Your task to perform on an android device: Open calendar and show me the fourth week of next month Image 0: 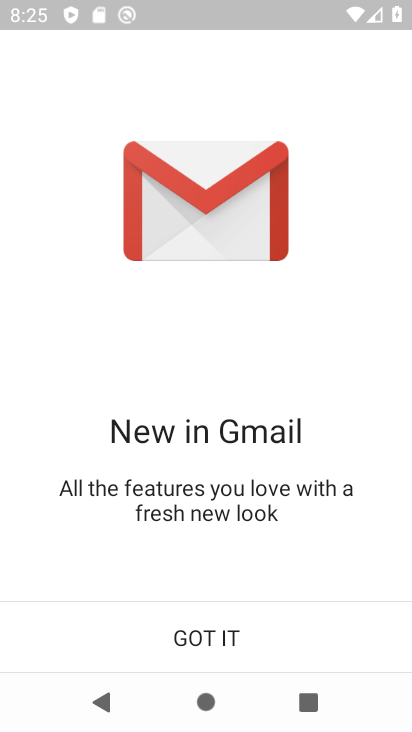
Step 0: drag from (211, 633) to (400, 439)
Your task to perform on an android device: Open calendar and show me the fourth week of next month Image 1: 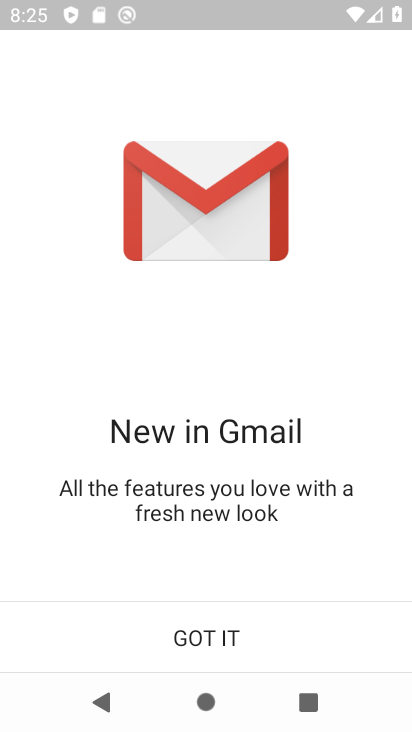
Step 1: press home button
Your task to perform on an android device: Open calendar and show me the fourth week of next month Image 2: 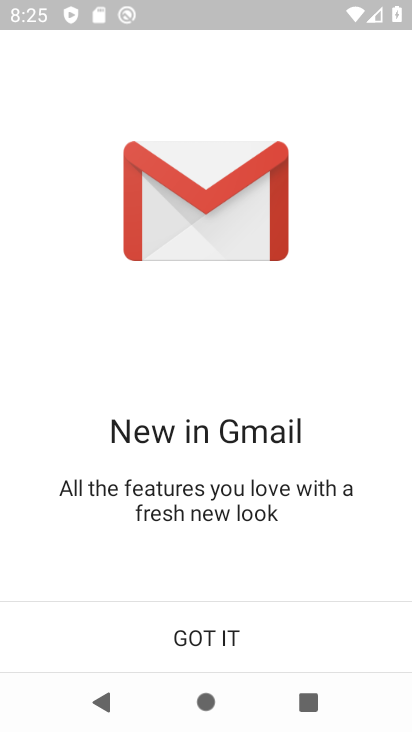
Step 2: drag from (400, 439) to (405, 396)
Your task to perform on an android device: Open calendar and show me the fourth week of next month Image 3: 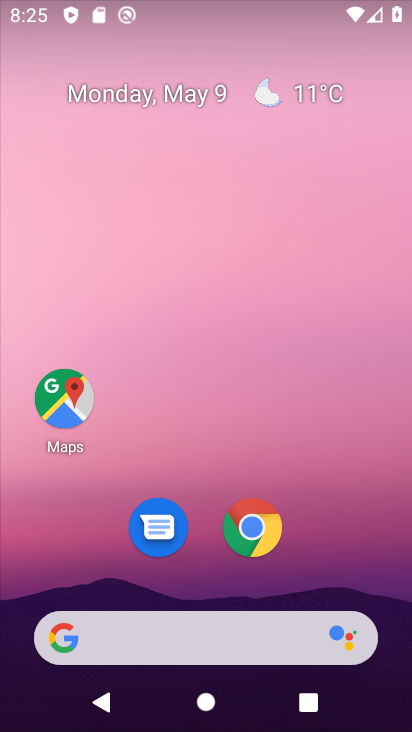
Step 3: drag from (212, 568) to (233, 95)
Your task to perform on an android device: Open calendar and show me the fourth week of next month Image 4: 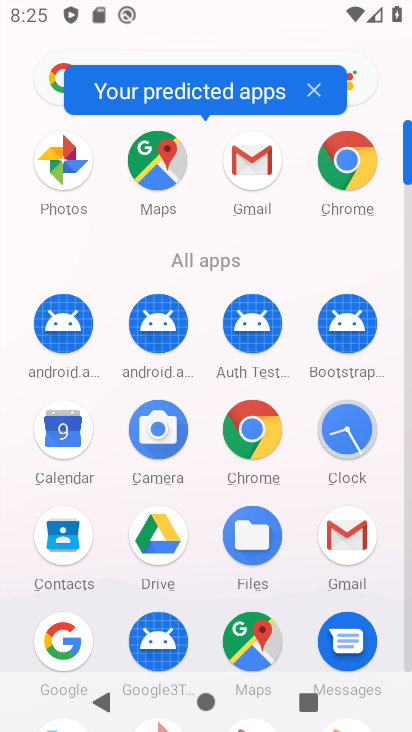
Step 4: click (69, 437)
Your task to perform on an android device: Open calendar and show me the fourth week of next month Image 5: 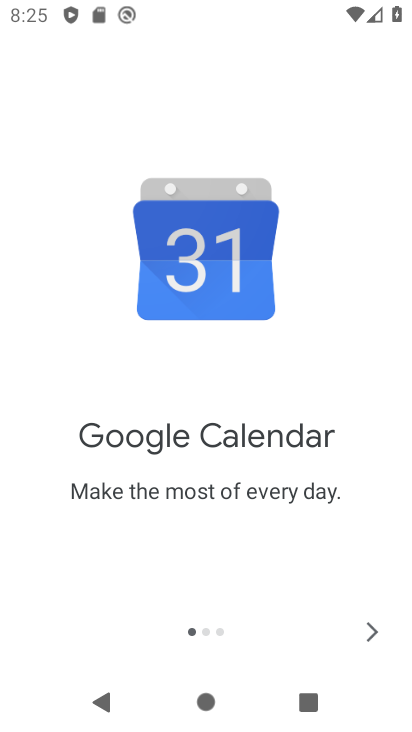
Step 5: click (359, 629)
Your task to perform on an android device: Open calendar and show me the fourth week of next month Image 6: 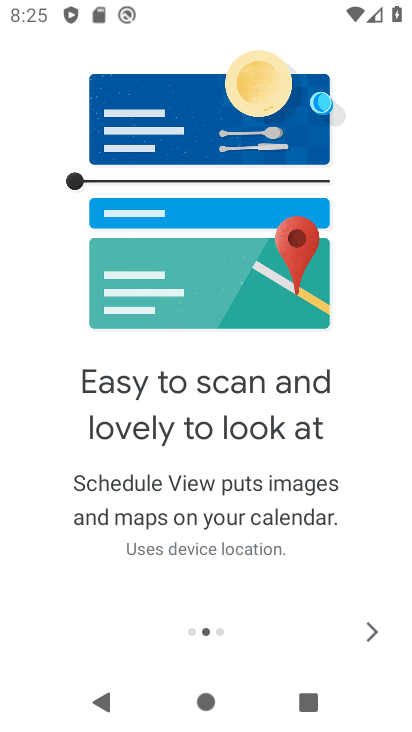
Step 6: click (360, 631)
Your task to perform on an android device: Open calendar and show me the fourth week of next month Image 7: 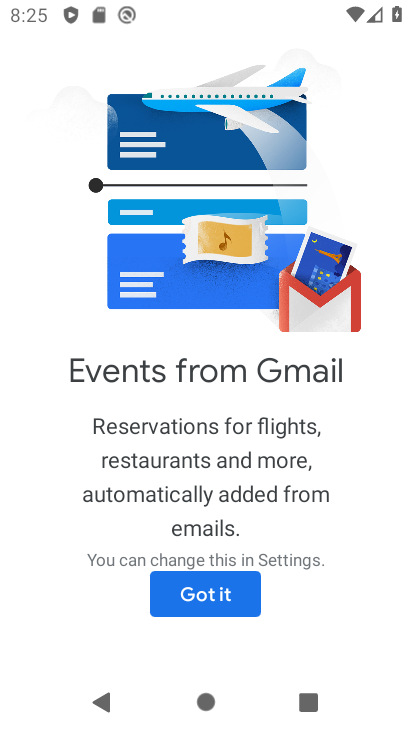
Step 7: click (228, 599)
Your task to perform on an android device: Open calendar and show me the fourth week of next month Image 8: 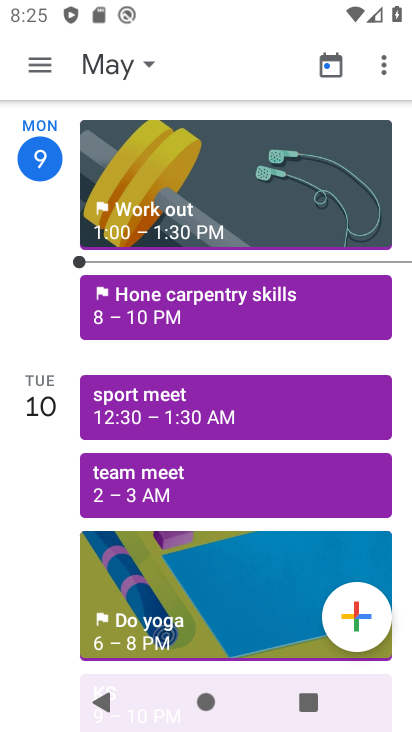
Step 8: click (136, 69)
Your task to perform on an android device: Open calendar and show me the fourth week of next month Image 9: 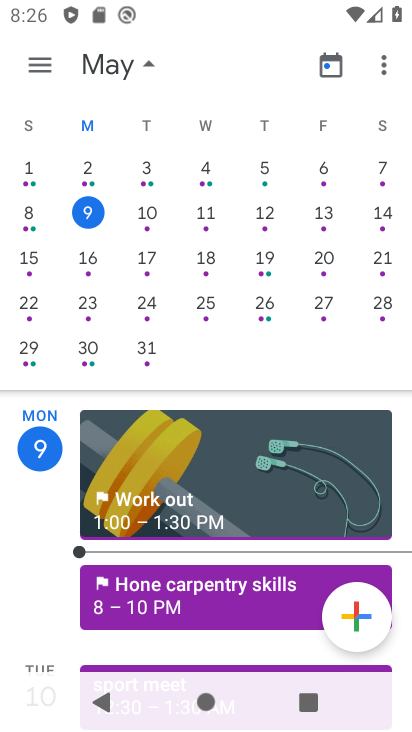
Step 9: drag from (350, 350) to (26, 360)
Your task to perform on an android device: Open calendar and show me the fourth week of next month Image 10: 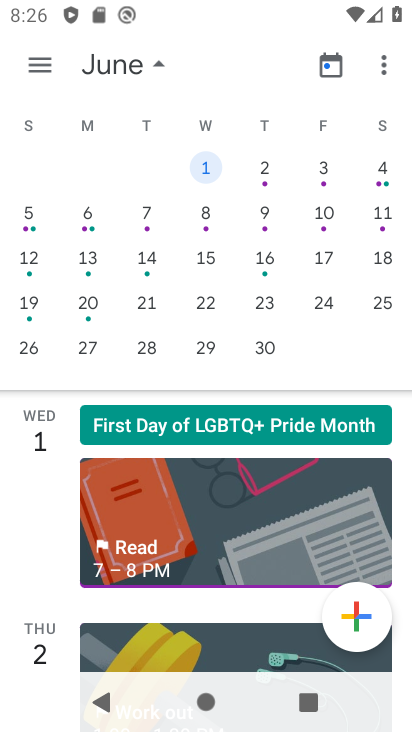
Step 10: click (211, 307)
Your task to perform on an android device: Open calendar and show me the fourth week of next month Image 11: 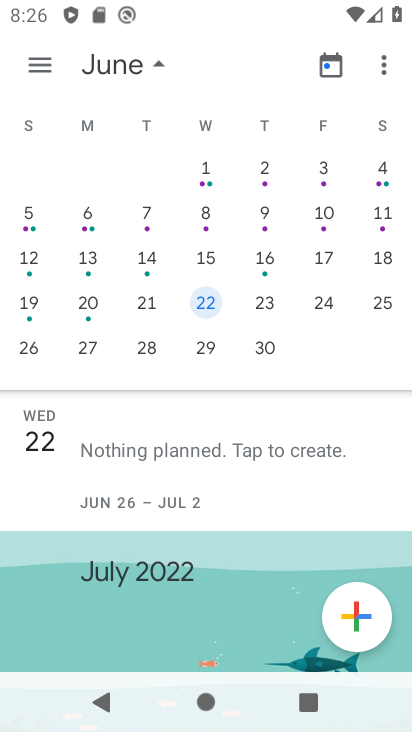
Step 11: task complete